Your task to perform on an android device: open wifi settings Image 0: 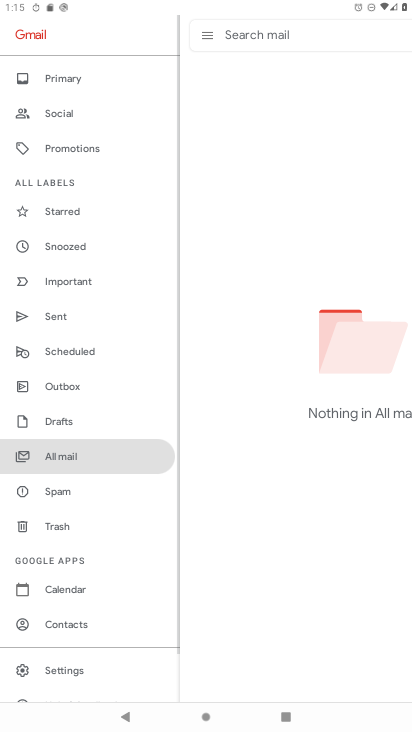
Step 0: press home button
Your task to perform on an android device: open wifi settings Image 1: 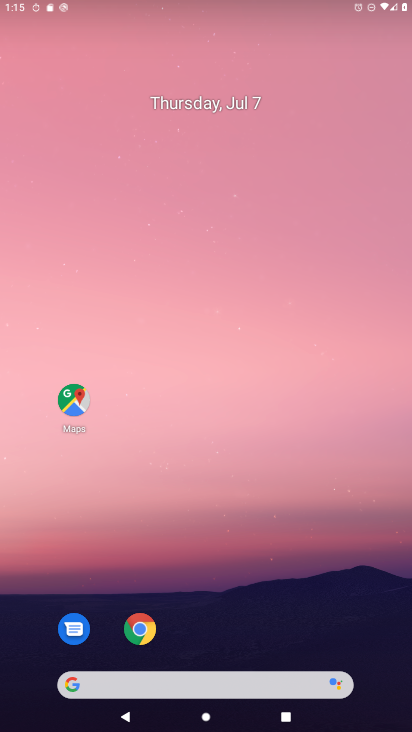
Step 1: drag from (224, 623) to (241, 95)
Your task to perform on an android device: open wifi settings Image 2: 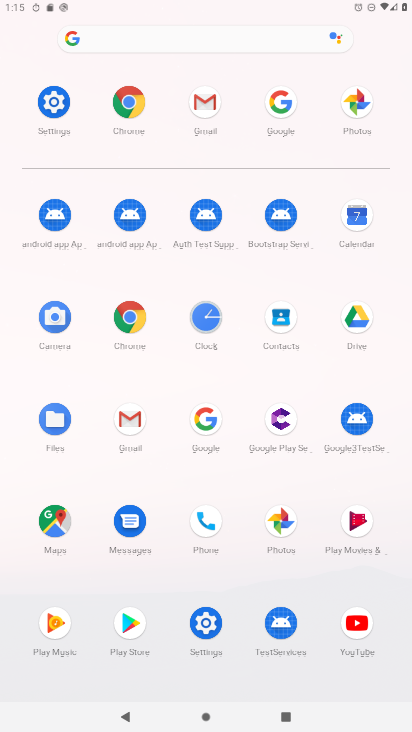
Step 2: click (63, 105)
Your task to perform on an android device: open wifi settings Image 3: 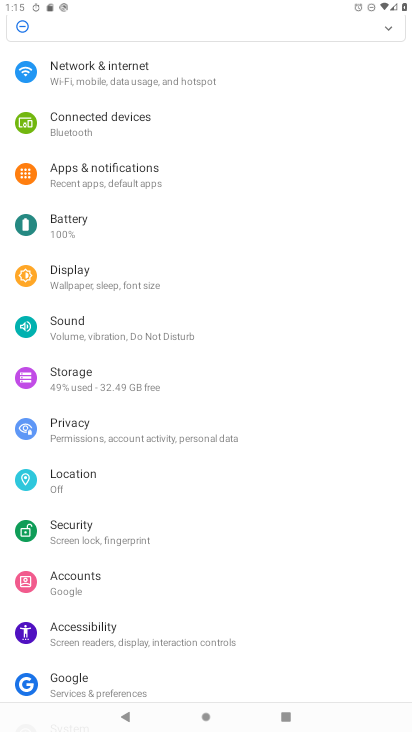
Step 3: click (136, 88)
Your task to perform on an android device: open wifi settings Image 4: 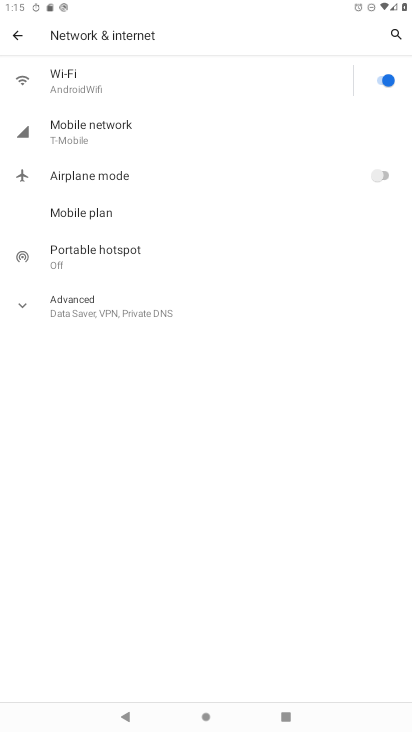
Step 4: click (136, 88)
Your task to perform on an android device: open wifi settings Image 5: 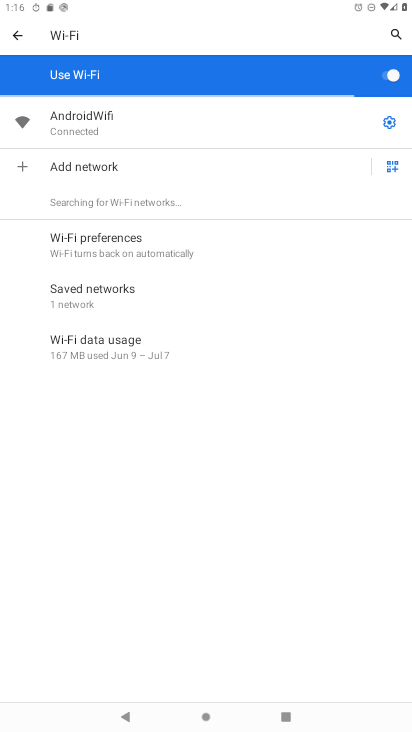
Step 5: task complete